Your task to perform on an android device: turn off data saver in the chrome app Image 0: 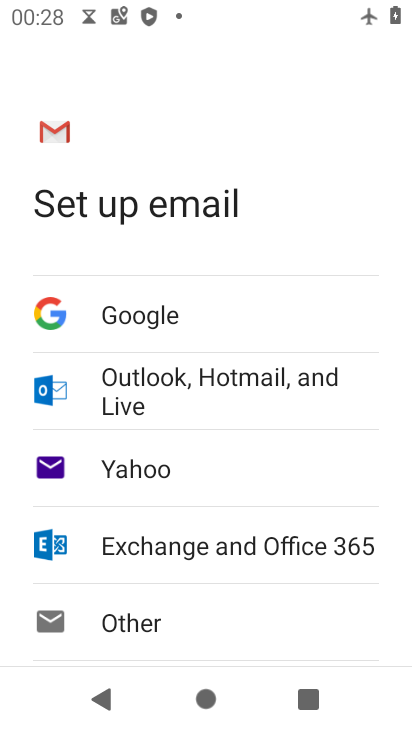
Step 0: press home button
Your task to perform on an android device: turn off data saver in the chrome app Image 1: 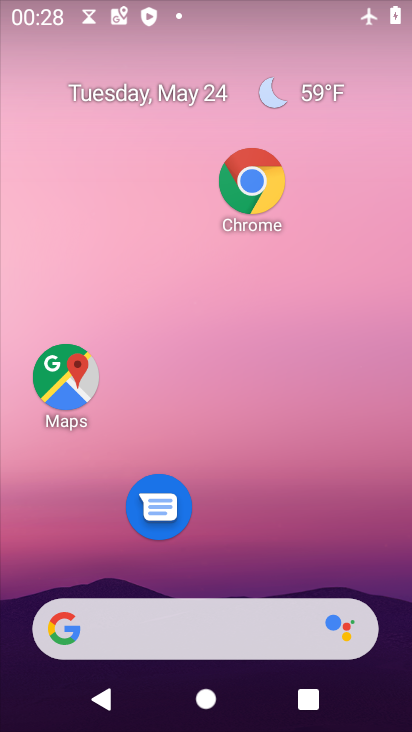
Step 1: drag from (308, 570) to (365, 286)
Your task to perform on an android device: turn off data saver in the chrome app Image 2: 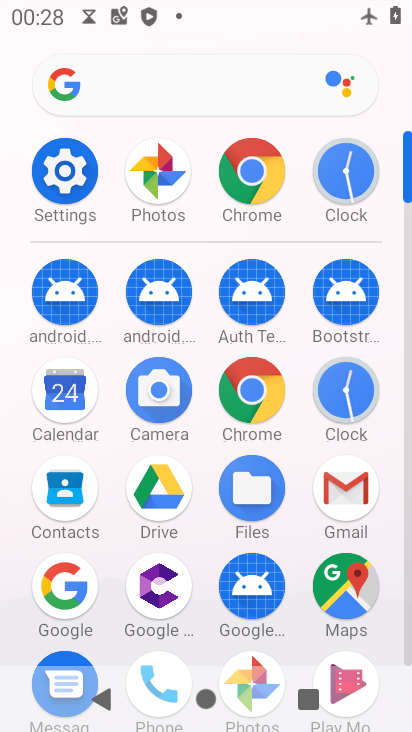
Step 2: click (254, 389)
Your task to perform on an android device: turn off data saver in the chrome app Image 3: 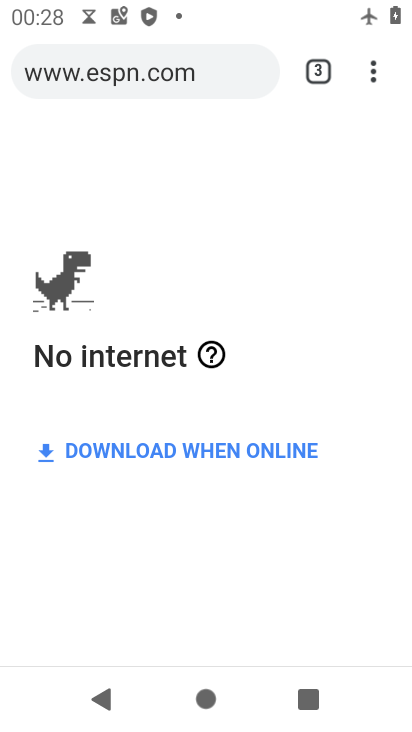
Step 3: click (365, 71)
Your task to perform on an android device: turn off data saver in the chrome app Image 4: 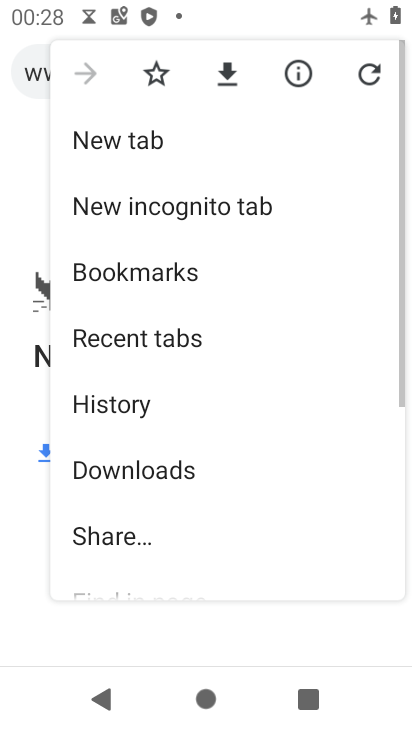
Step 4: drag from (198, 504) to (268, 168)
Your task to perform on an android device: turn off data saver in the chrome app Image 5: 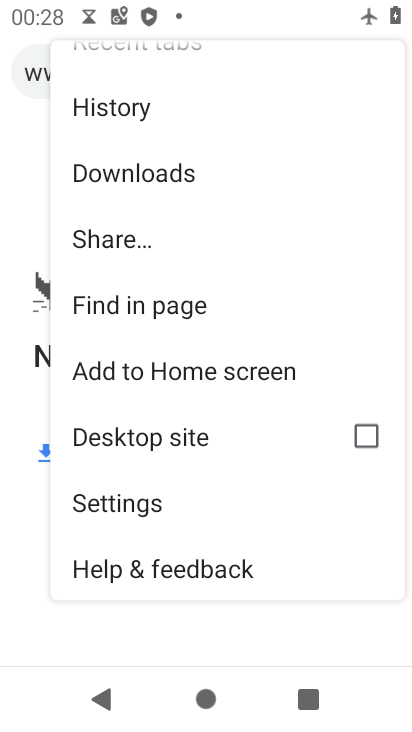
Step 5: click (172, 515)
Your task to perform on an android device: turn off data saver in the chrome app Image 6: 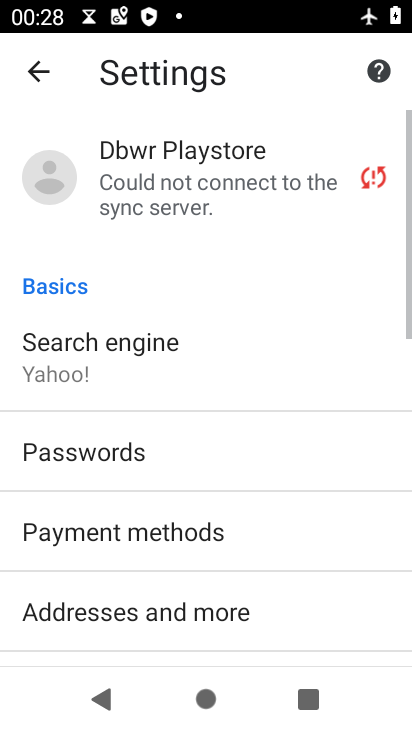
Step 6: drag from (178, 529) to (244, 190)
Your task to perform on an android device: turn off data saver in the chrome app Image 7: 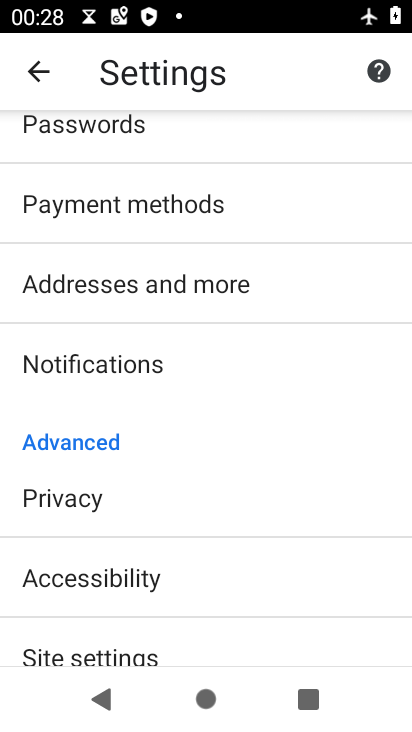
Step 7: drag from (209, 563) to (282, 262)
Your task to perform on an android device: turn off data saver in the chrome app Image 8: 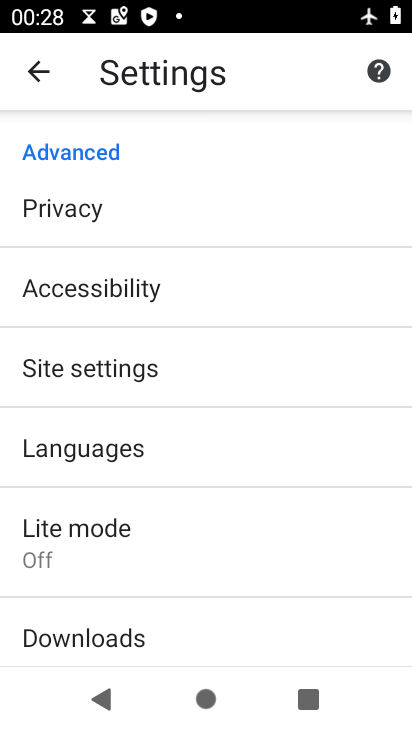
Step 8: click (112, 545)
Your task to perform on an android device: turn off data saver in the chrome app Image 9: 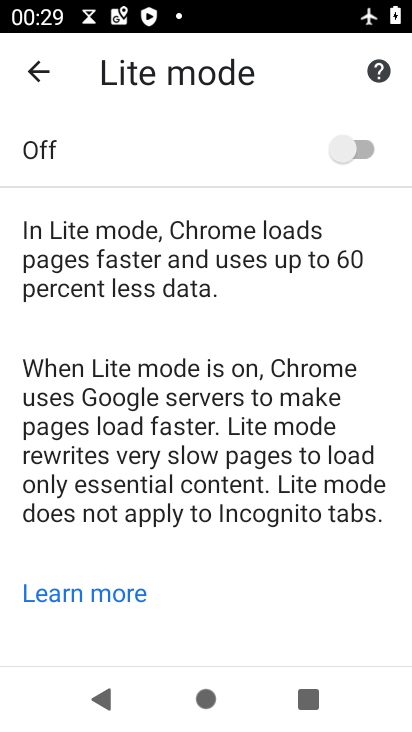
Step 9: task complete